Your task to perform on an android device: Go to settings Image 0: 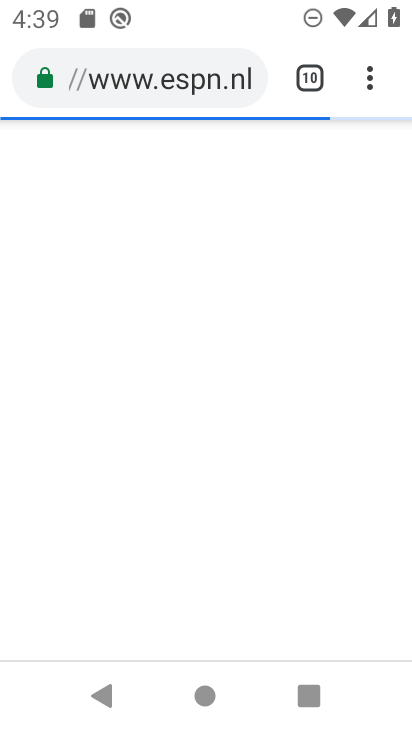
Step 0: press home button
Your task to perform on an android device: Go to settings Image 1: 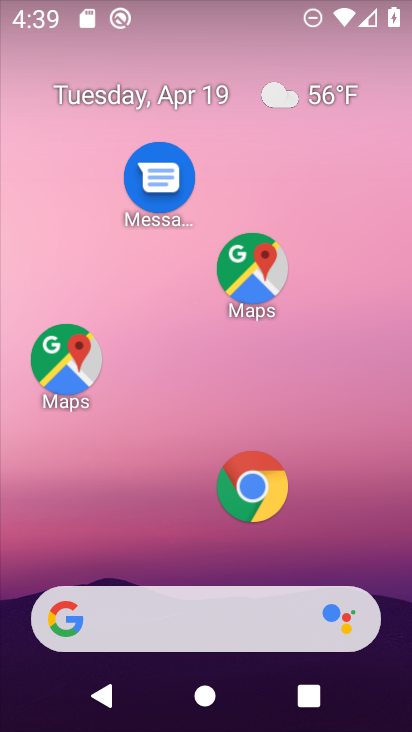
Step 1: drag from (322, 452) to (351, 187)
Your task to perform on an android device: Go to settings Image 2: 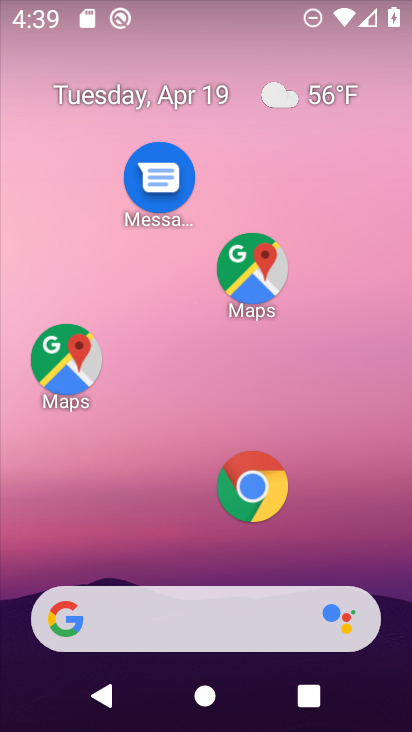
Step 2: drag from (344, 290) to (390, 111)
Your task to perform on an android device: Go to settings Image 3: 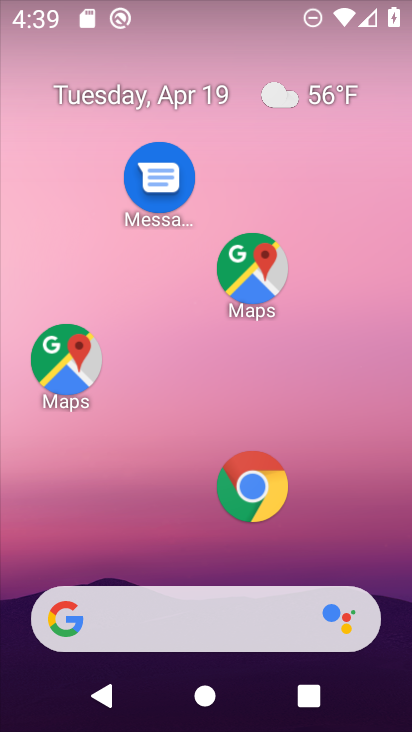
Step 3: drag from (153, 514) to (233, 122)
Your task to perform on an android device: Go to settings Image 4: 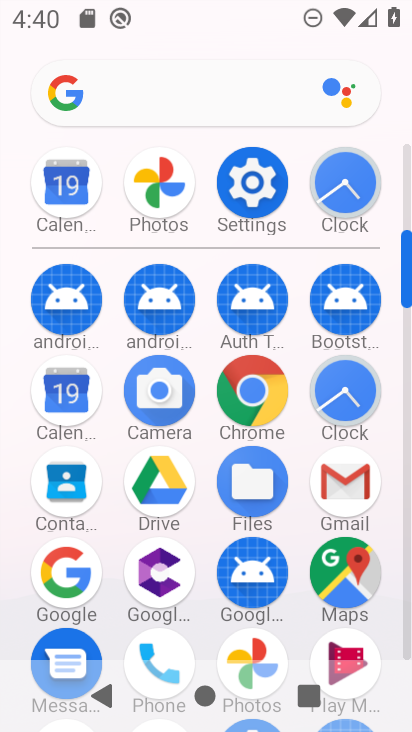
Step 4: click (265, 198)
Your task to perform on an android device: Go to settings Image 5: 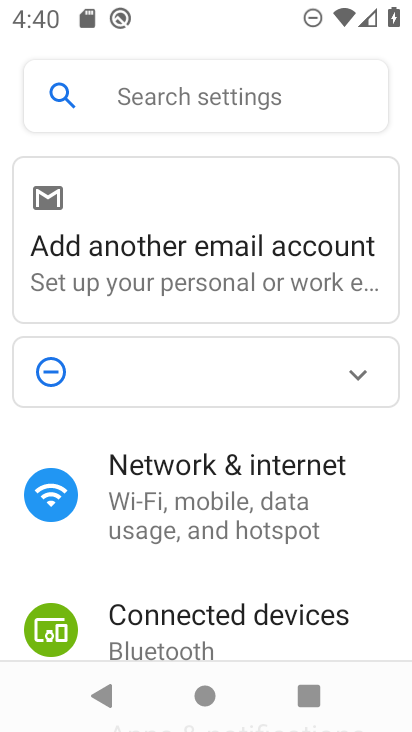
Step 5: task complete